Your task to perform on an android device: turn off wifi Image 0: 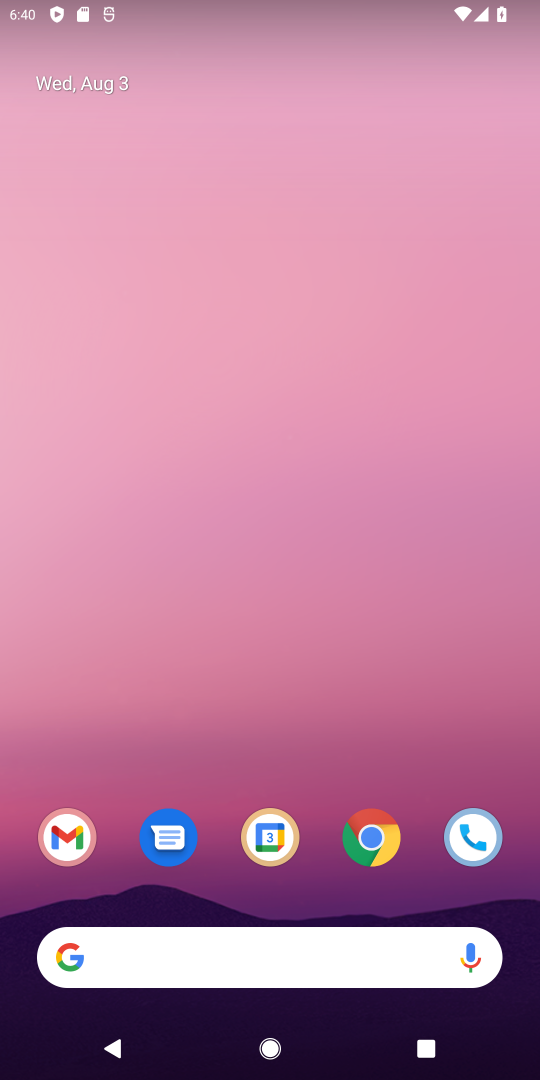
Step 0: press home button
Your task to perform on an android device: turn off wifi Image 1: 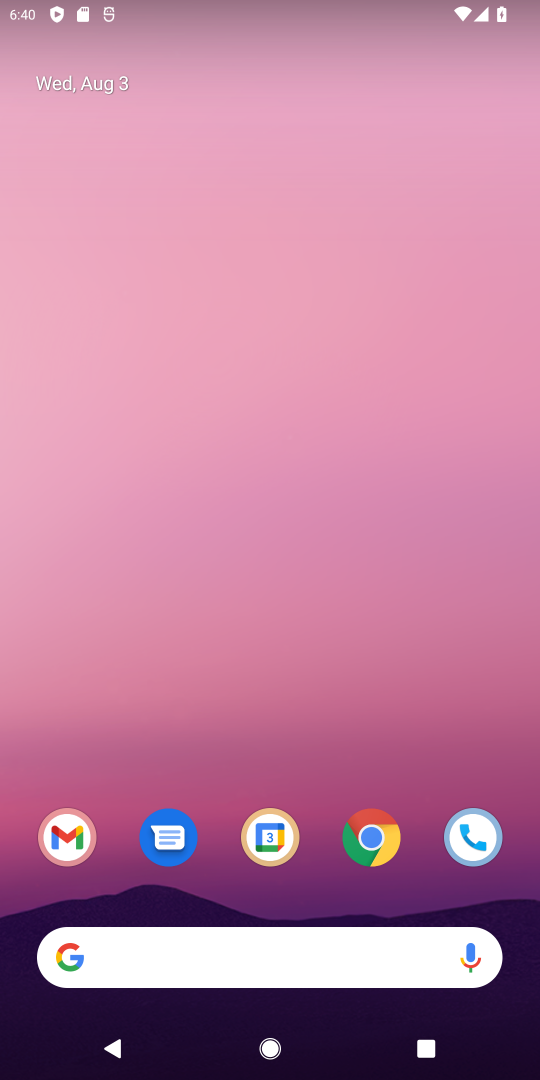
Step 1: drag from (392, 737) to (307, 2)
Your task to perform on an android device: turn off wifi Image 2: 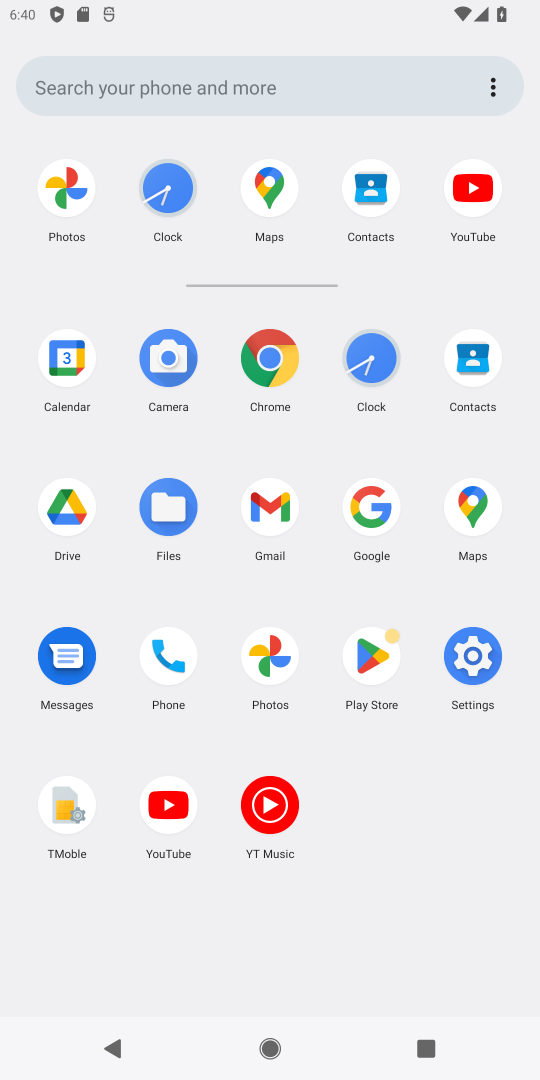
Step 2: click (458, 659)
Your task to perform on an android device: turn off wifi Image 3: 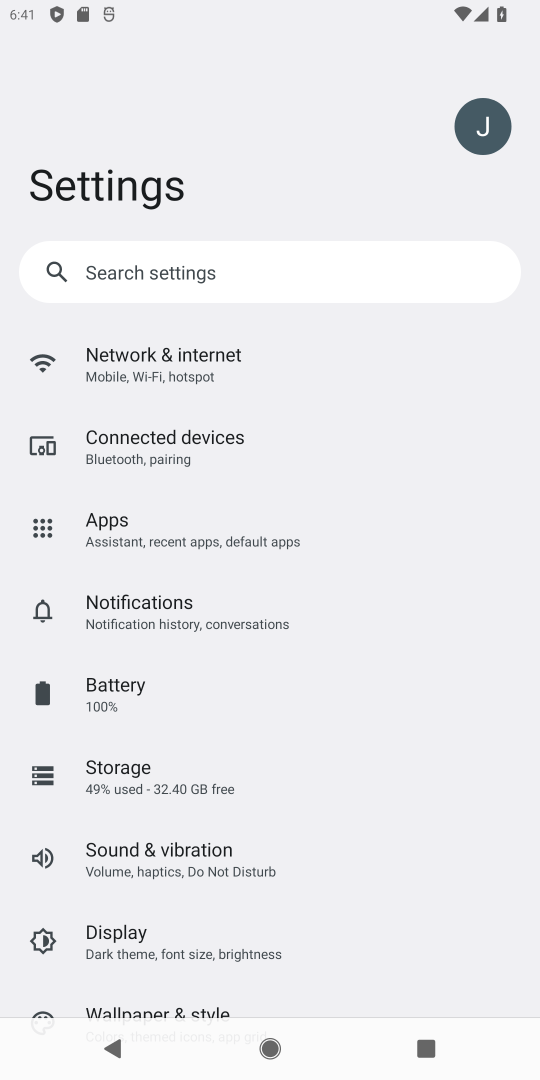
Step 3: click (229, 362)
Your task to perform on an android device: turn off wifi Image 4: 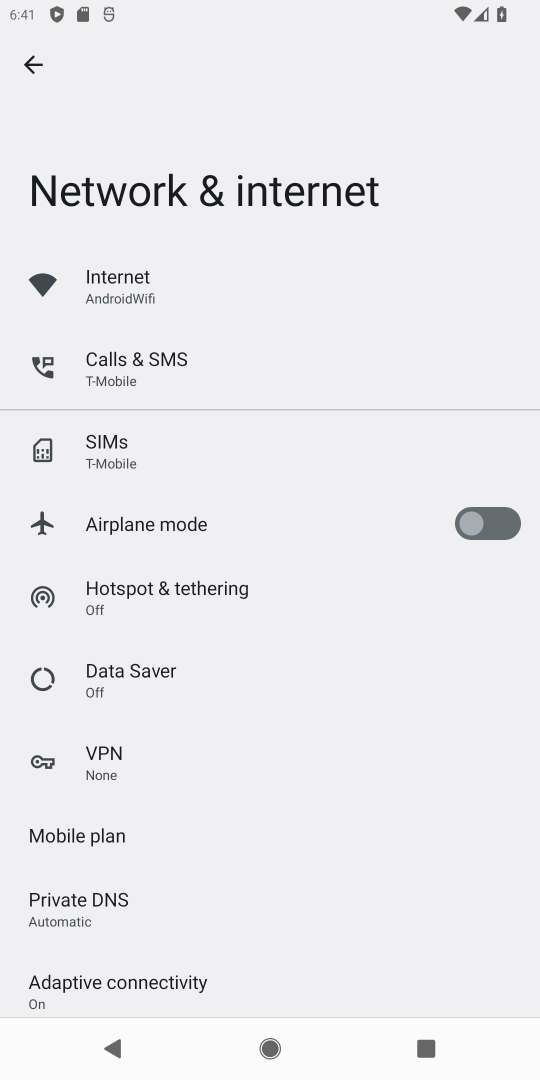
Step 4: click (121, 282)
Your task to perform on an android device: turn off wifi Image 5: 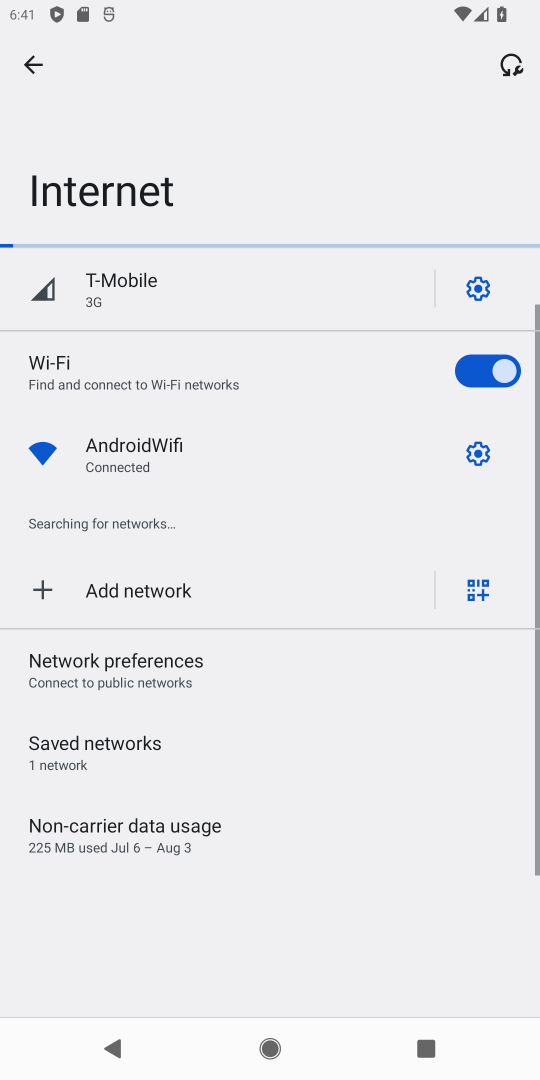
Step 5: click (483, 360)
Your task to perform on an android device: turn off wifi Image 6: 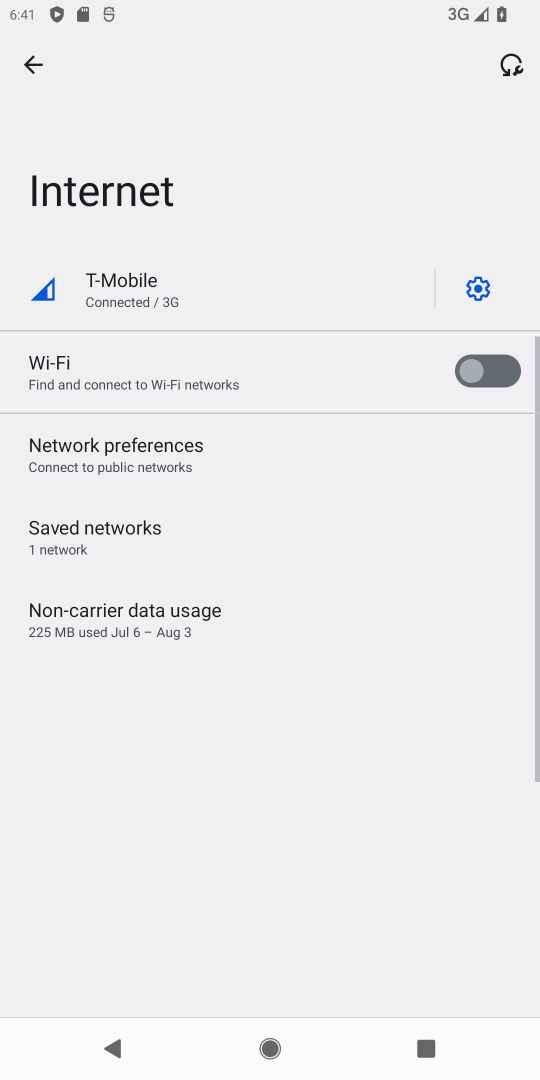
Step 6: task complete